Your task to perform on an android device: toggle notification dots Image 0: 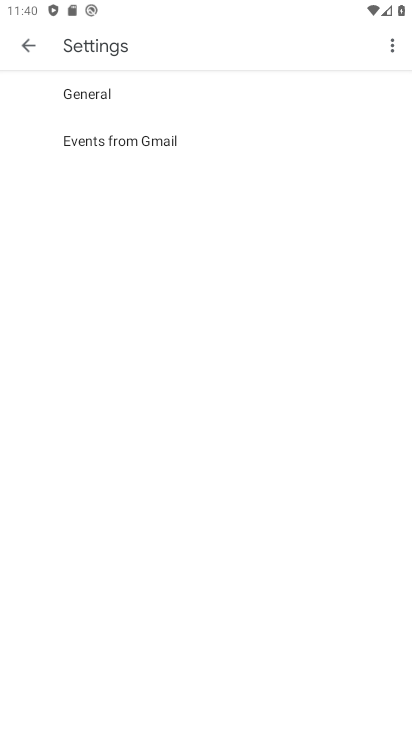
Step 0: press home button
Your task to perform on an android device: toggle notification dots Image 1: 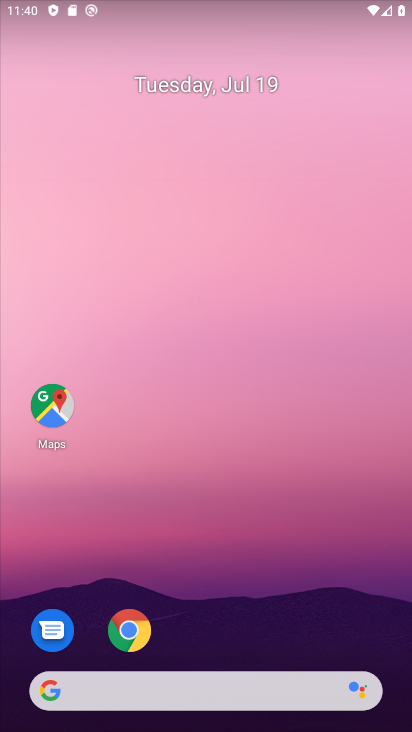
Step 1: drag from (239, 679) to (282, 137)
Your task to perform on an android device: toggle notification dots Image 2: 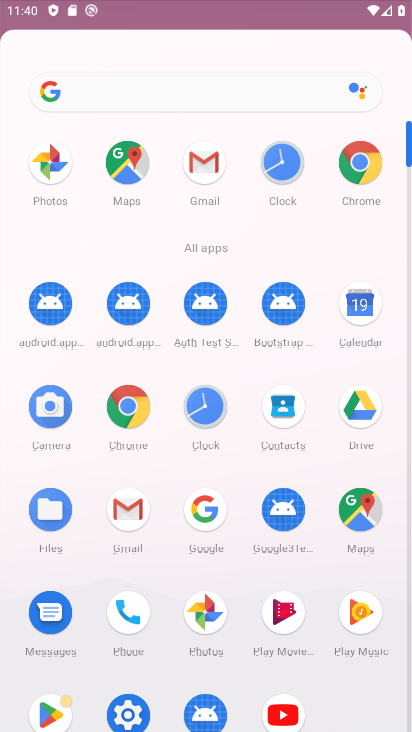
Step 2: drag from (180, 561) to (212, 345)
Your task to perform on an android device: toggle notification dots Image 3: 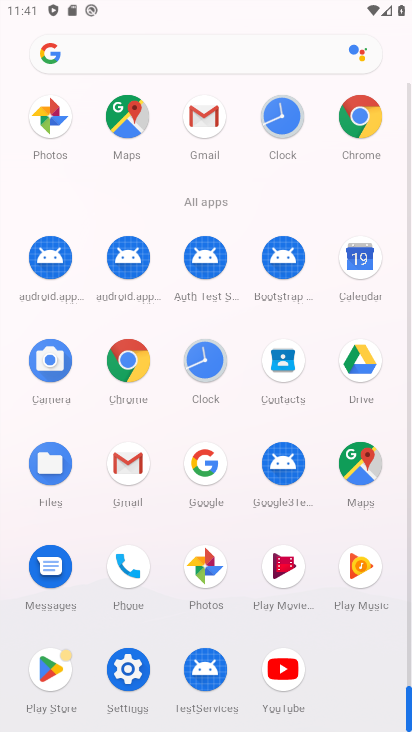
Step 3: drag from (178, 458) to (212, 149)
Your task to perform on an android device: toggle notification dots Image 4: 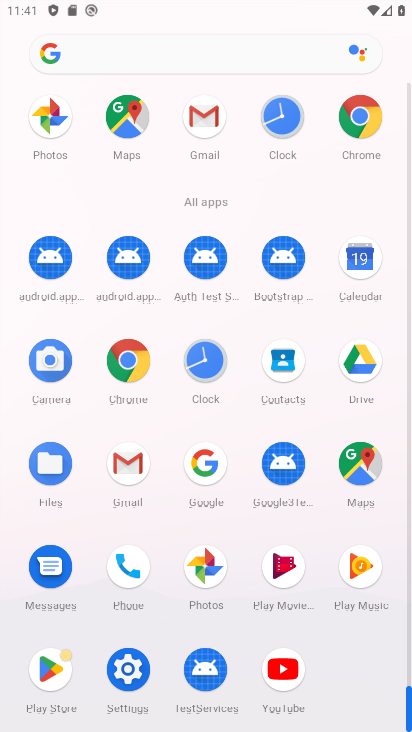
Step 4: click (125, 668)
Your task to perform on an android device: toggle notification dots Image 5: 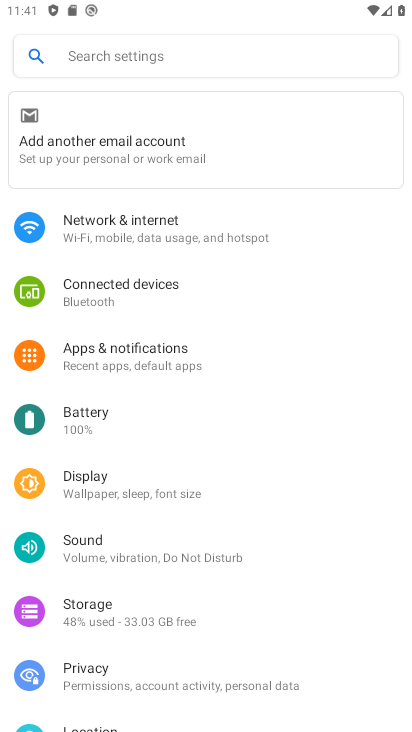
Step 5: click (132, 358)
Your task to perform on an android device: toggle notification dots Image 6: 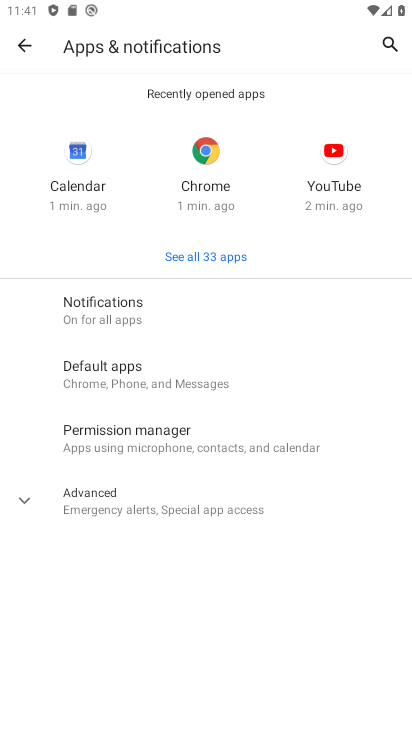
Step 6: click (161, 315)
Your task to perform on an android device: toggle notification dots Image 7: 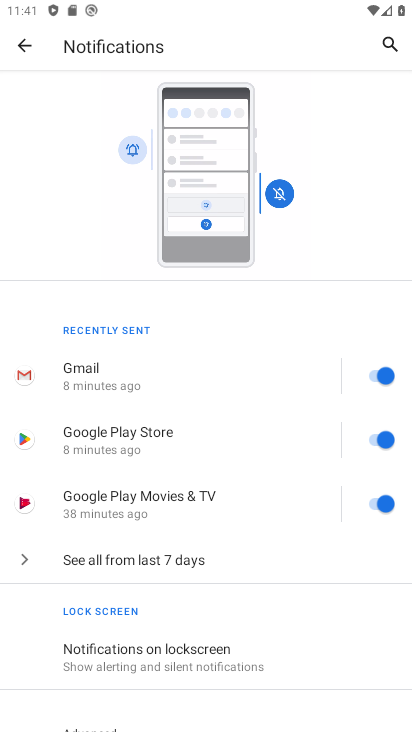
Step 7: drag from (139, 553) to (189, 246)
Your task to perform on an android device: toggle notification dots Image 8: 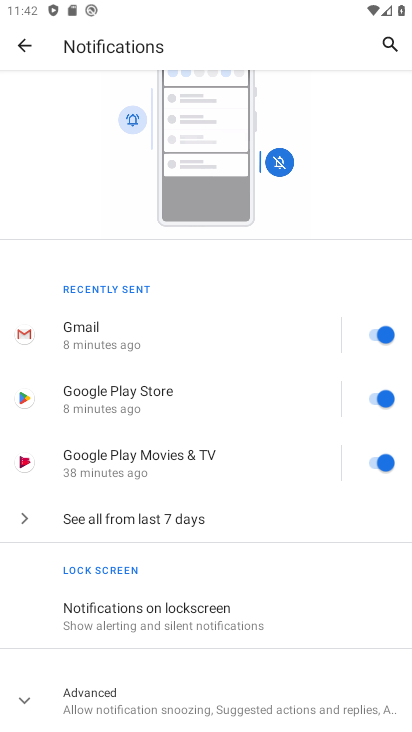
Step 8: drag from (156, 593) to (194, 315)
Your task to perform on an android device: toggle notification dots Image 9: 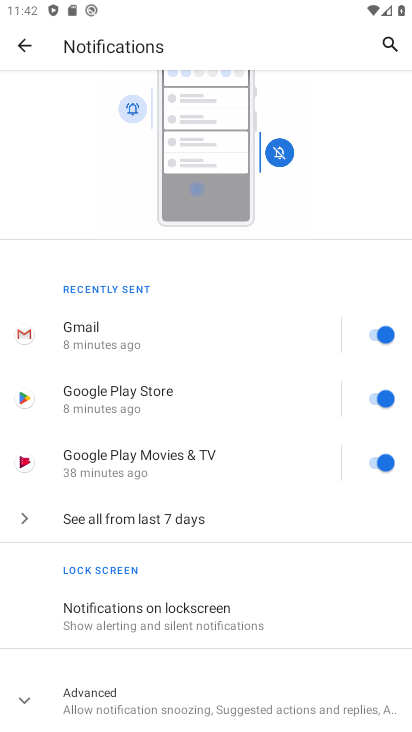
Step 9: drag from (159, 598) to (190, 311)
Your task to perform on an android device: toggle notification dots Image 10: 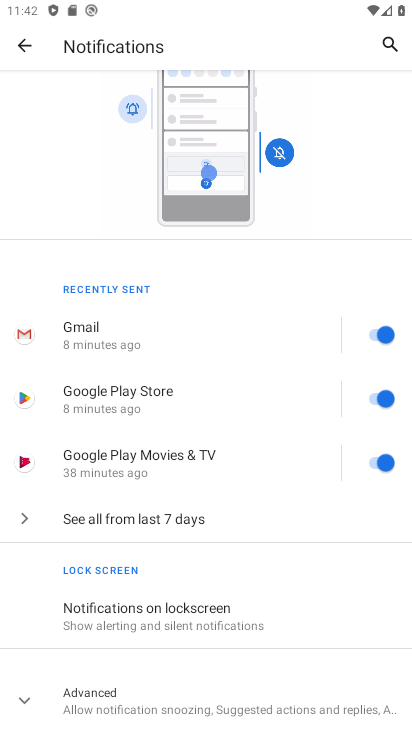
Step 10: click (145, 701)
Your task to perform on an android device: toggle notification dots Image 11: 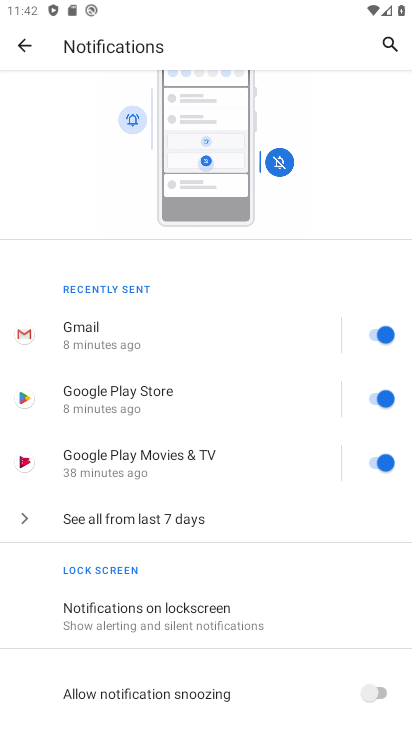
Step 11: drag from (177, 615) to (229, 267)
Your task to perform on an android device: toggle notification dots Image 12: 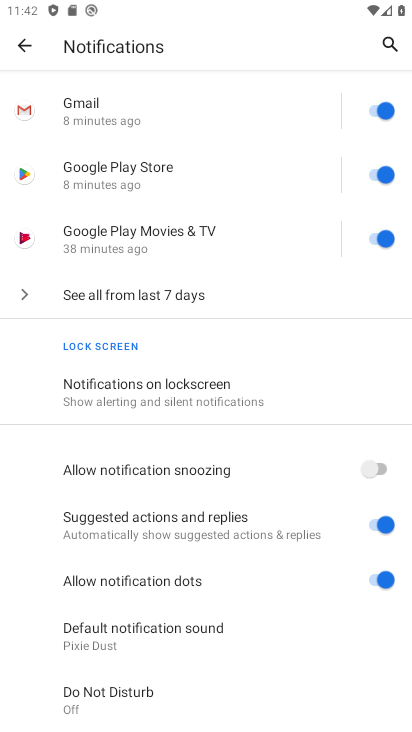
Step 12: click (367, 583)
Your task to perform on an android device: toggle notification dots Image 13: 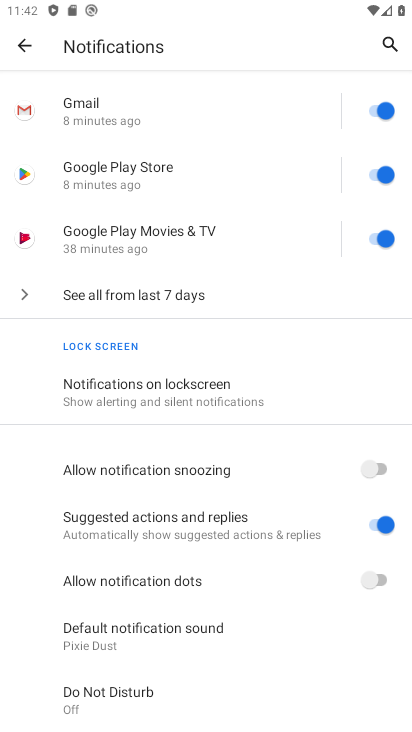
Step 13: task complete